Your task to perform on an android device: star an email in the gmail app Image 0: 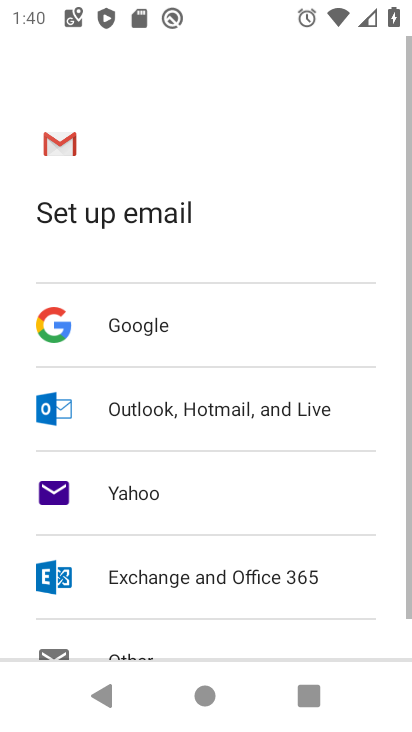
Step 0: press home button
Your task to perform on an android device: star an email in the gmail app Image 1: 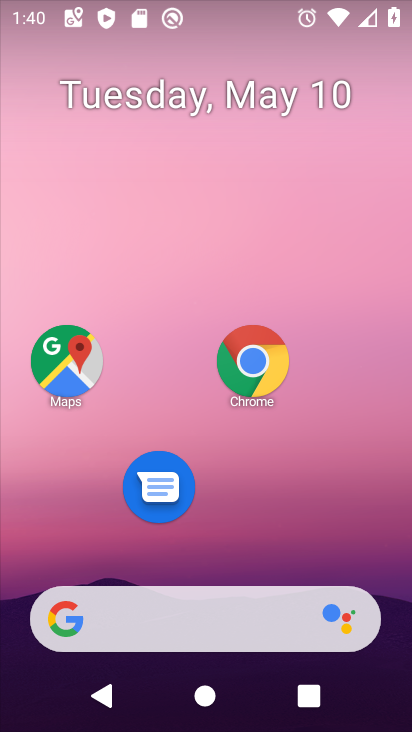
Step 1: drag from (358, 480) to (136, 12)
Your task to perform on an android device: star an email in the gmail app Image 2: 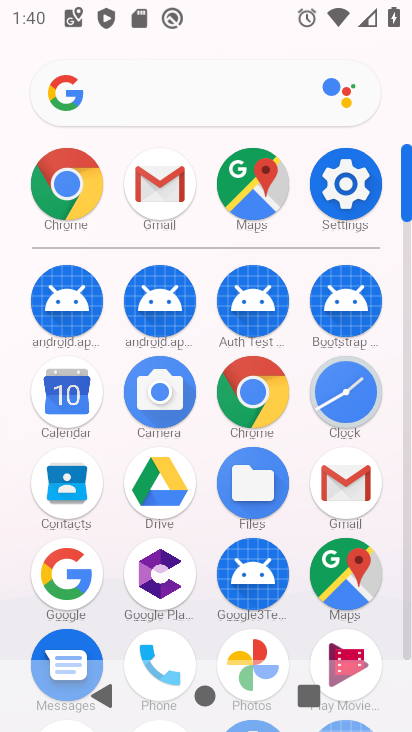
Step 2: click (171, 190)
Your task to perform on an android device: star an email in the gmail app Image 3: 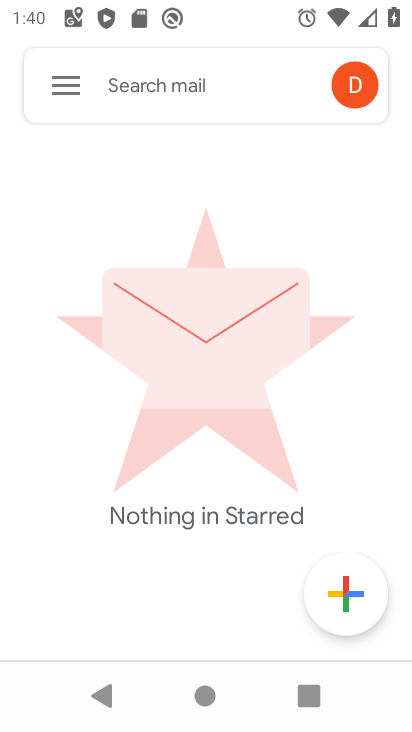
Step 3: click (72, 94)
Your task to perform on an android device: star an email in the gmail app Image 4: 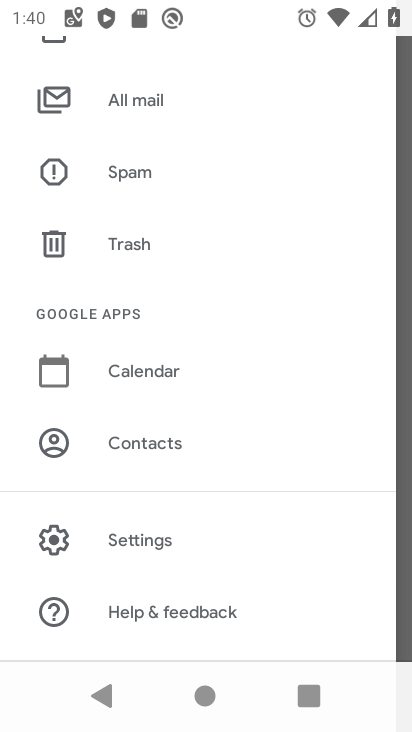
Step 4: drag from (166, 508) to (274, 702)
Your task to perform on an android device: star an email in the gmail app Image 5: 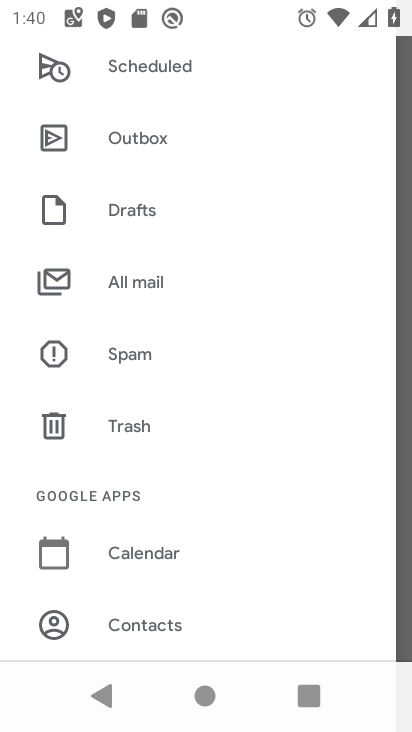
Step 5: click (97, 280)
Your task to perform on an android device: star an email in the gmail app Image 6: 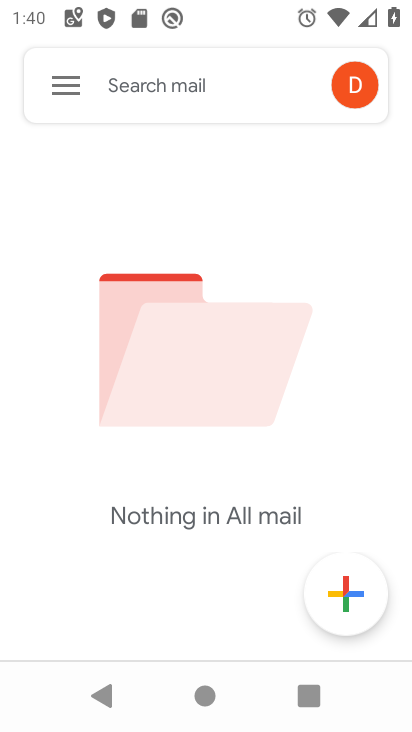
Step 6: task complete